Your task to perform on an android device: open a bookmark in the chrome app Image 0: 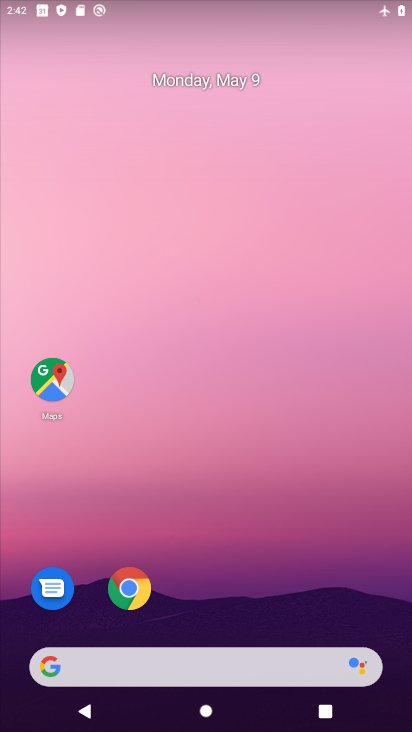
Step 0: drag from (336, 469) to (171, 18)
Your task to perform on an android device: open a bookmark in the chrome app Image 1: 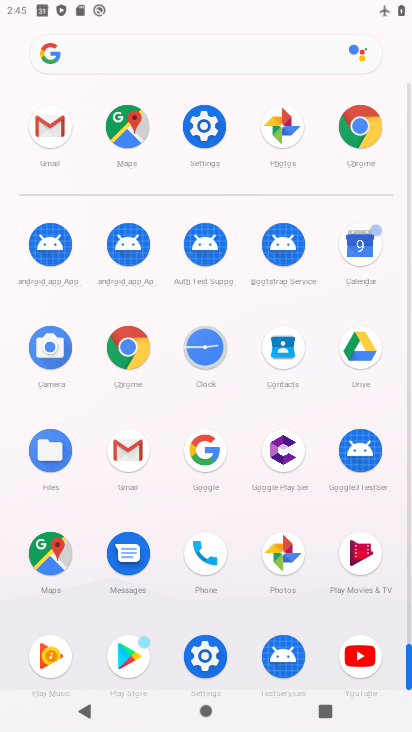
Step 1: click (135, 355)
Your task to perform on an android device: open a bookmark in the chrome app Image 2: 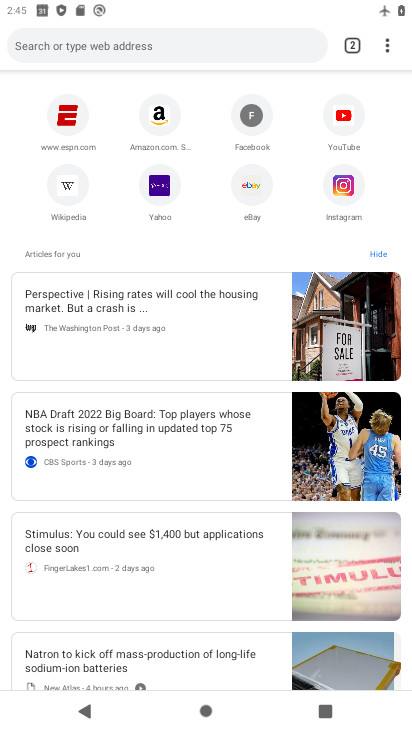
Step 2: click (387, 44)
Your task to perform on an android device: open a bookmark in the chrome app Image 3: 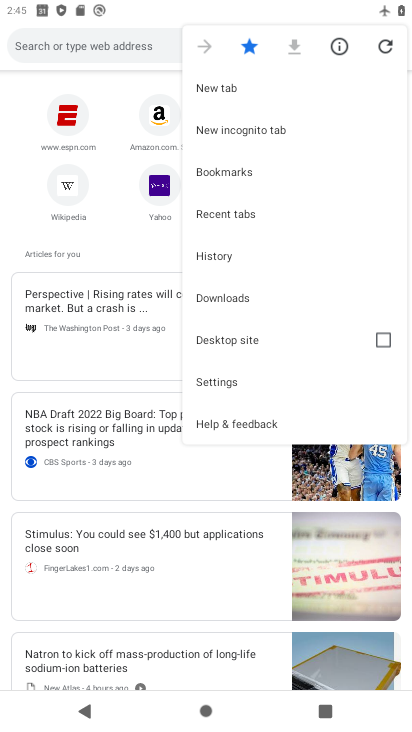
Step 3: click (262, 176)
Your task to perform on an android device: open a bookmark in the chrome app Image 4: 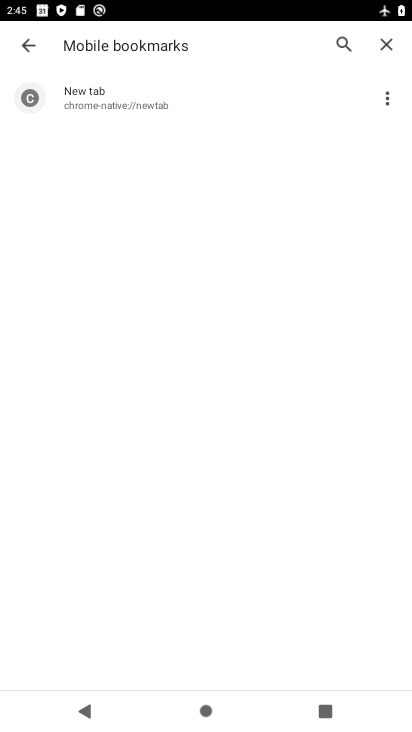
Step 4: task complete